Your task to perform on an android device: What's the speed of light? Image 0: 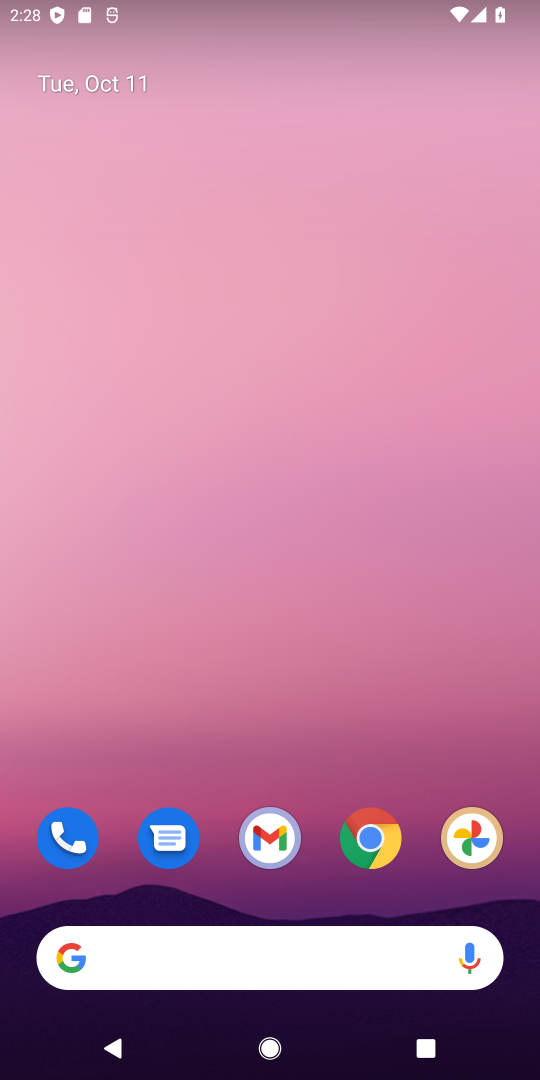
Step 0: click (387, 842)
Your task to perform on an android device: What's the speed of light? Image 1: 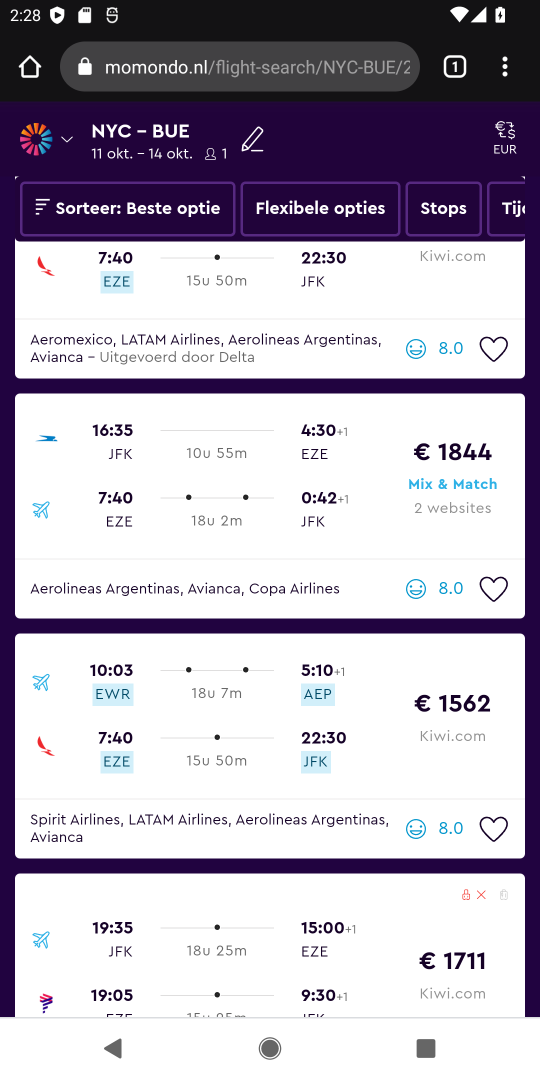
Step 1: click (272, 67)
Your task to perform on an android device: What's the speed of light? Image 2: 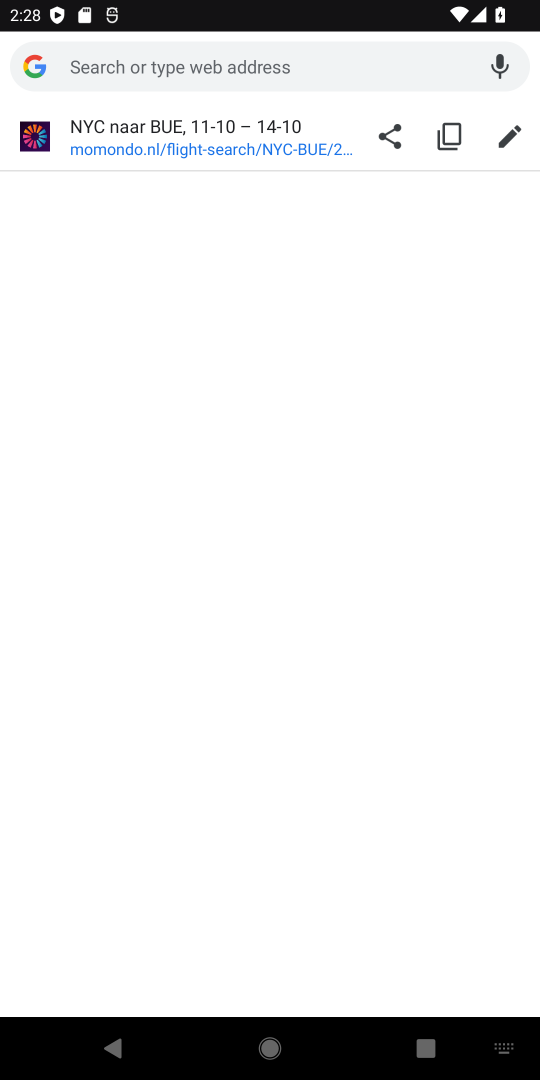
Step 2: type "speed of light"
Your task to perform on an android device: What's the speed of light? Image 3: 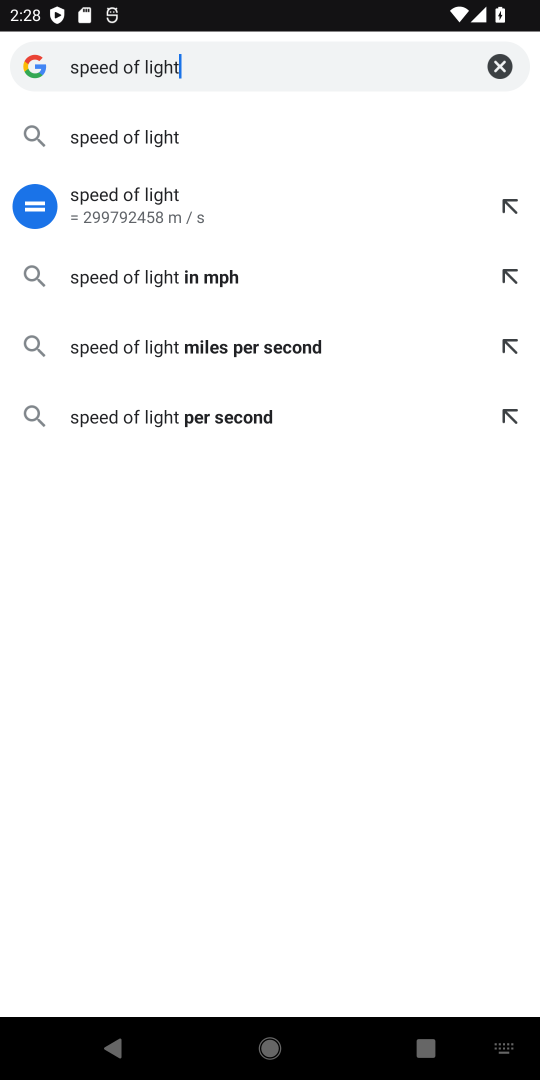
Step 3: click (78, 204)
Your task to perform on an android device: What's the speed of light? Image 4: 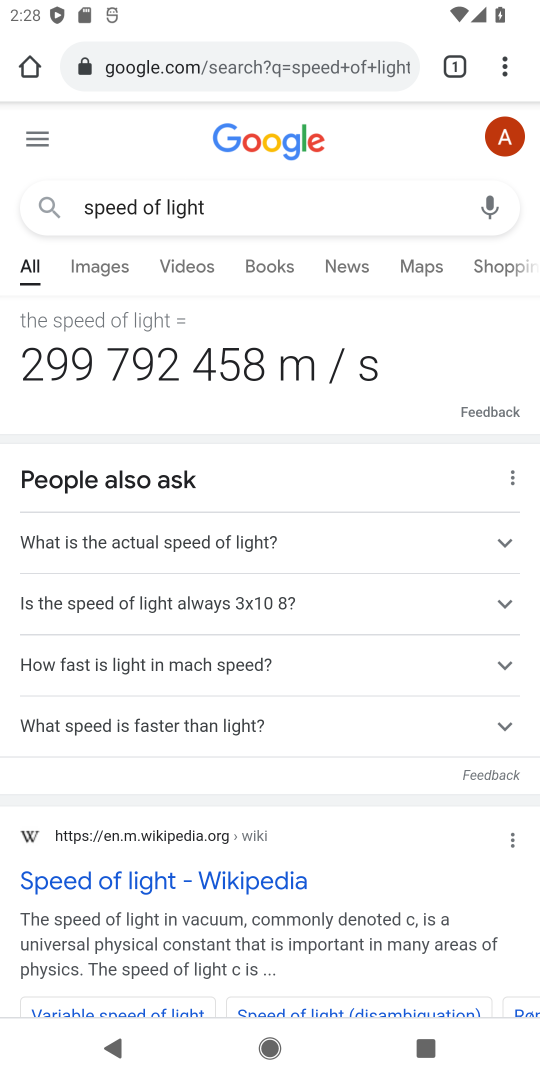
Step 4: click (98, 882)
Your task to perform on an android device: What's the speed of light? Image 5: 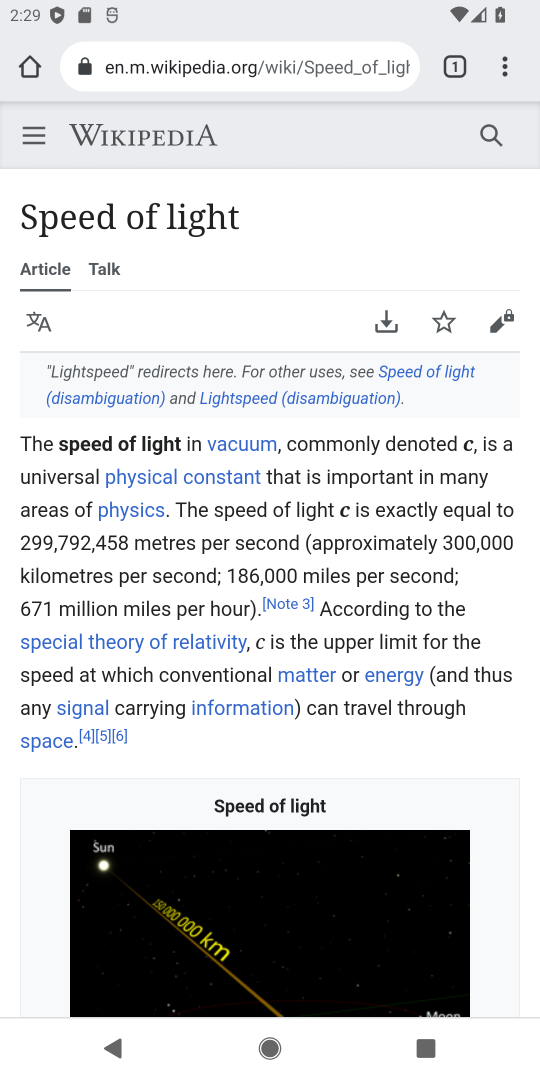
Step 5: task complete